Your task to perform on an android device: change timer sound Image 0: 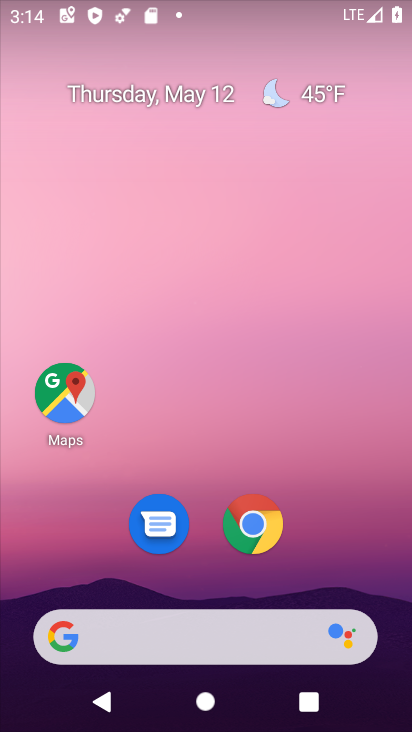
Step 0: drag from (352, 449) to (325, 75)
Your task to perform on an android device: change timer sound Image 1: 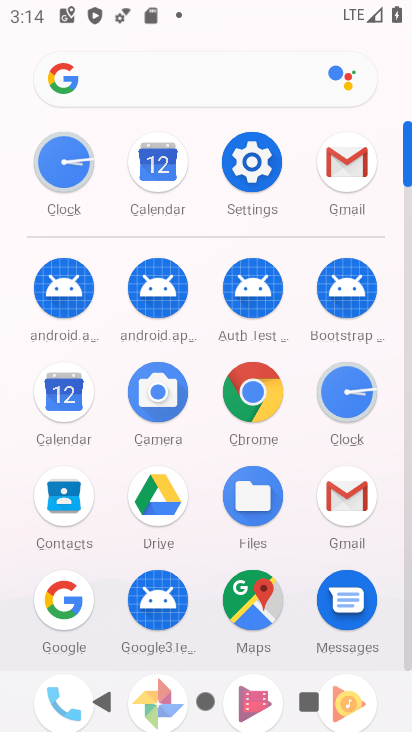
Step 1: click (346, 376)
Your task to perform on an android device: change timer sound Image 2: 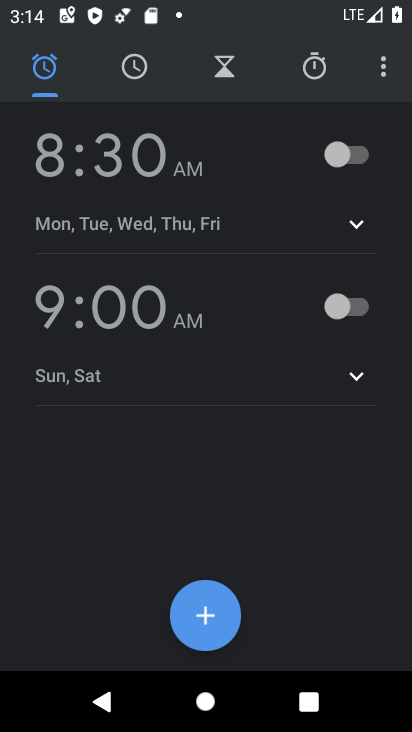
Step 2: click (376, 68)
Your task to perform on an android device: change timer sound Image 3: 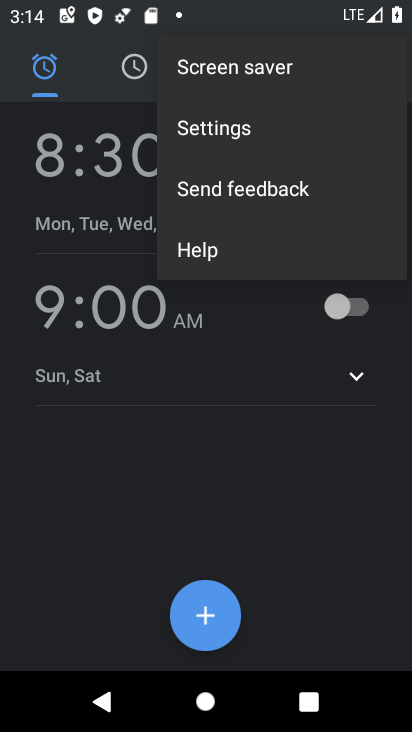
Step 3: click (281, 120)
Your task to perform on an android device: change timer sound Image 4: 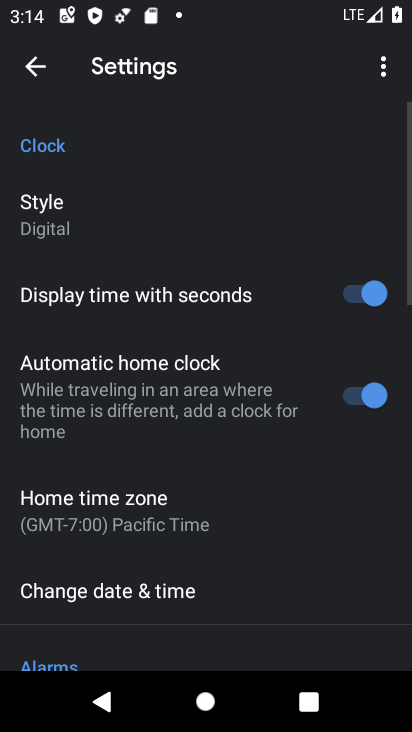
Step 4: drag from (212, 492) to (237, 160)
Your task to perform on an android device: change timer sound Image 5: 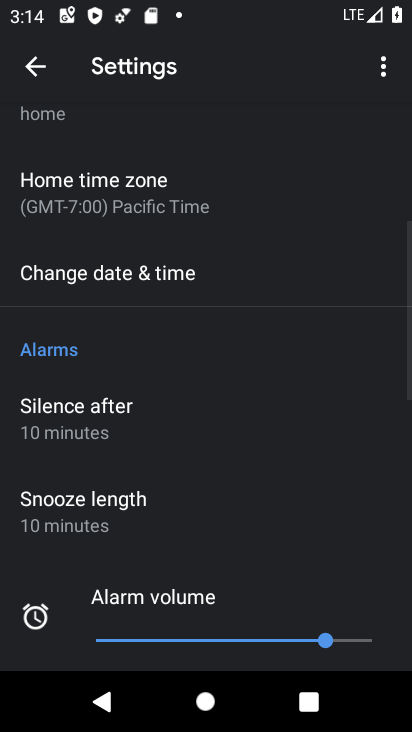
Step 5: drag from (200, 537) to (243, 133)
Your task to perform on an android device: change timer sound Image 6: 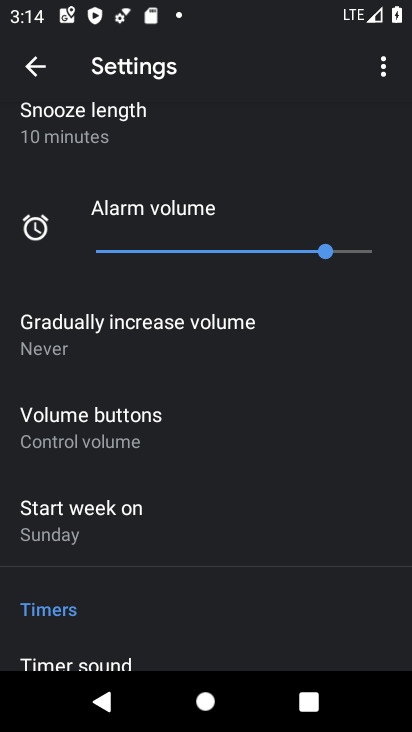
Step 6: drag from (211, 536) to (257, 72)
Your task to perform on an android device: change timer sound Image 7: 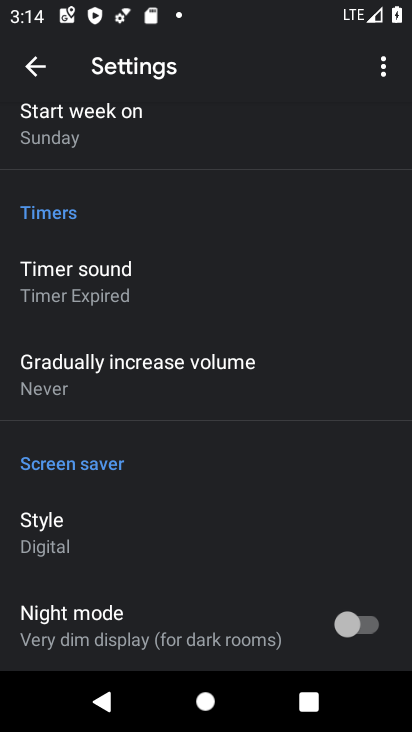
Step 7: click (132, 290)
Your task to perform on an android device: change timer sound Image 8: 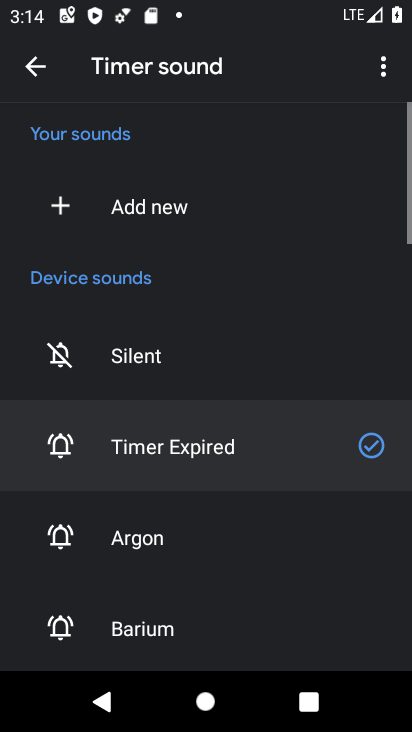
Step 8: click (130, 546)
Your task to perform on an android device: change timer sound Image 9: 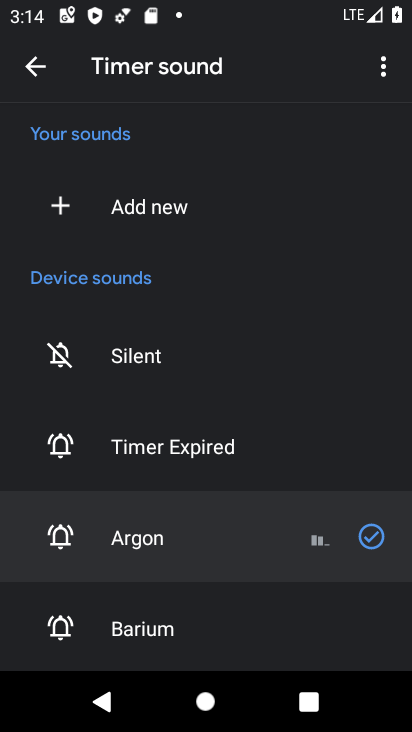
Step 9: task complete